Your task to perform on an android device: open app "Booking.com: Hotels and more" (install if not already installed) Image 0: 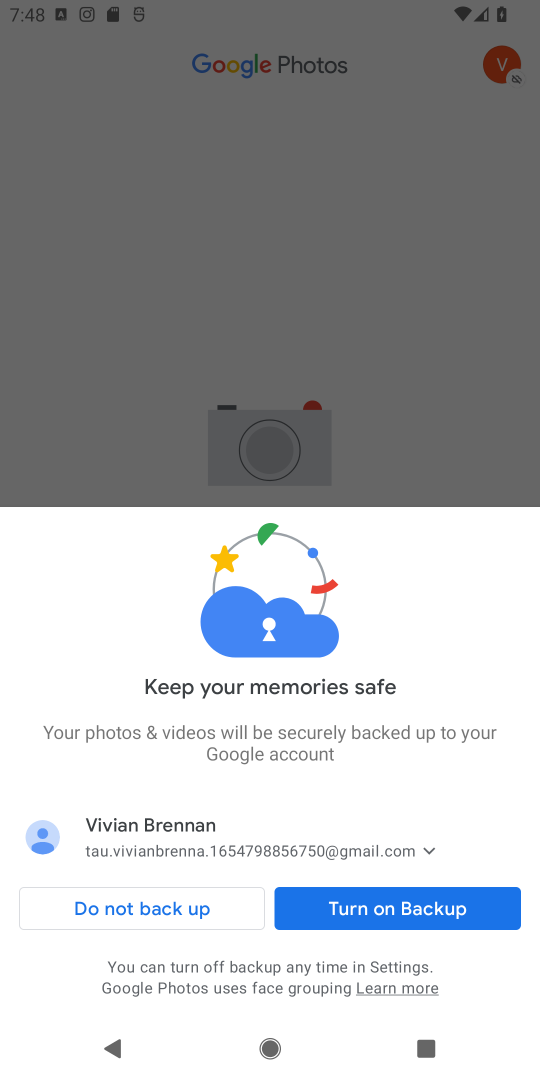
Step 0: press home button
Your task to perform on an android device: open app "Booking.com: Hotels and more" (install if not already installed) Image 1: 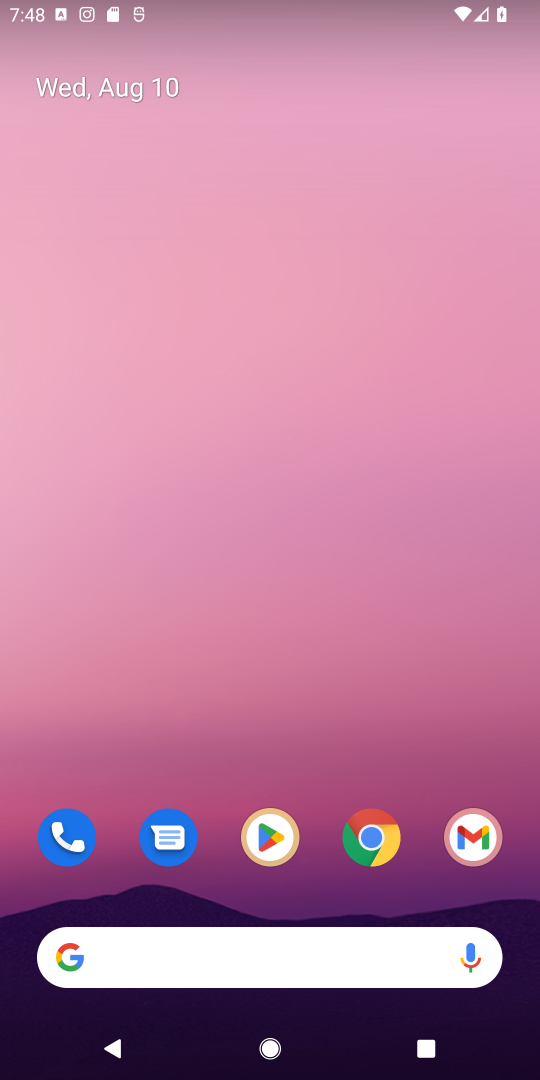
Step 1: click (268, 836)
Your task to perform on an android device: open app "Booking.com: Hotels and more" (install if not already installed) Image 2: 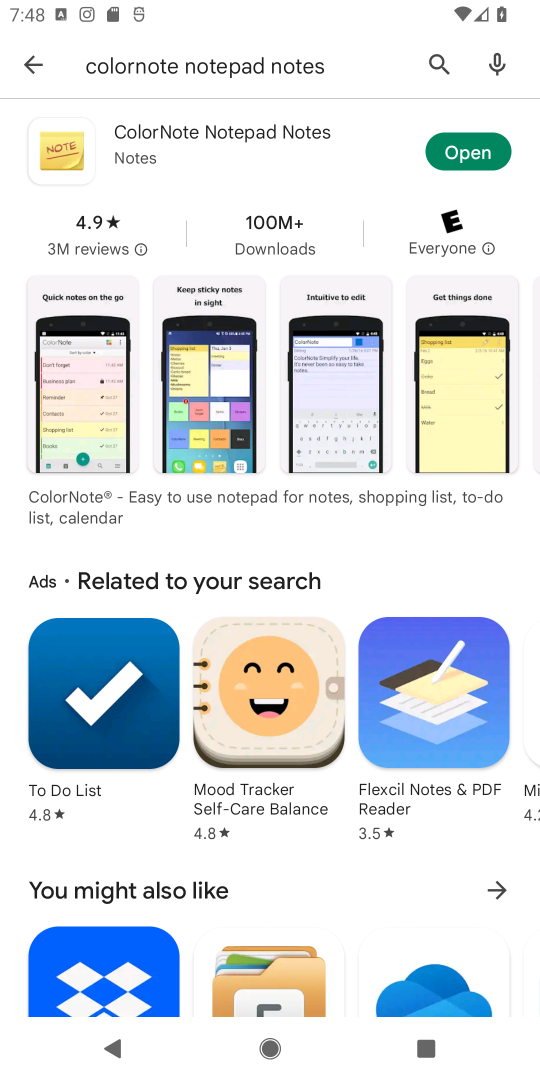
Step 2: click (425, 61)
Your task to perform on an android device: open app "Booking.com: Hotels and more" (install if not already installed) Image 3: 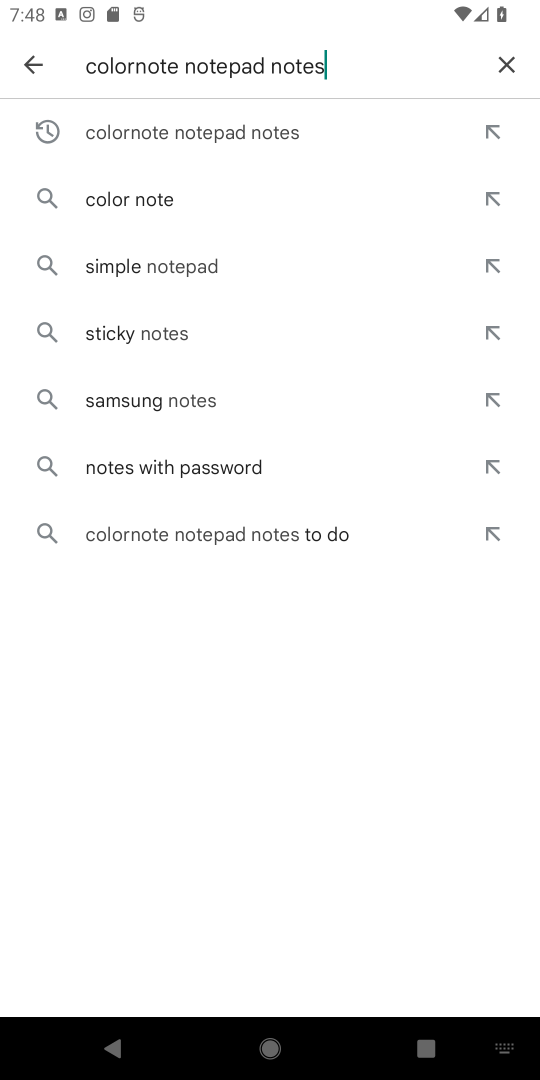
Step 3: click (502, 61)
Your task to perform on an android device: open app "Booking.com: Hotels and more" (install if not already installed) Image 4: 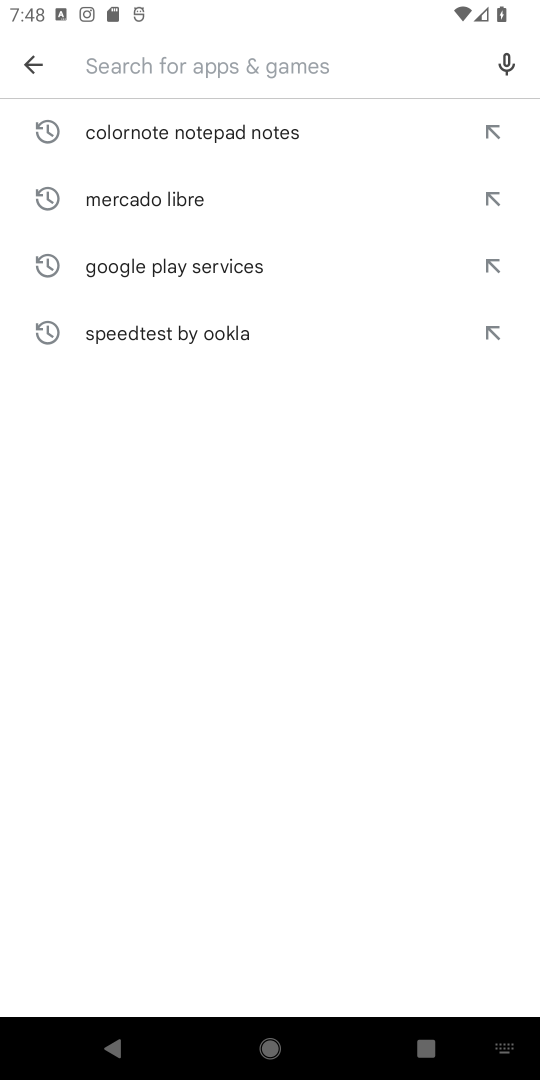
Step 4: type "Booking.com: Hotels and more"
Your task to perform on an android device: open app "Booking.com: Hotels and more" (install if not already installed) Image 5: 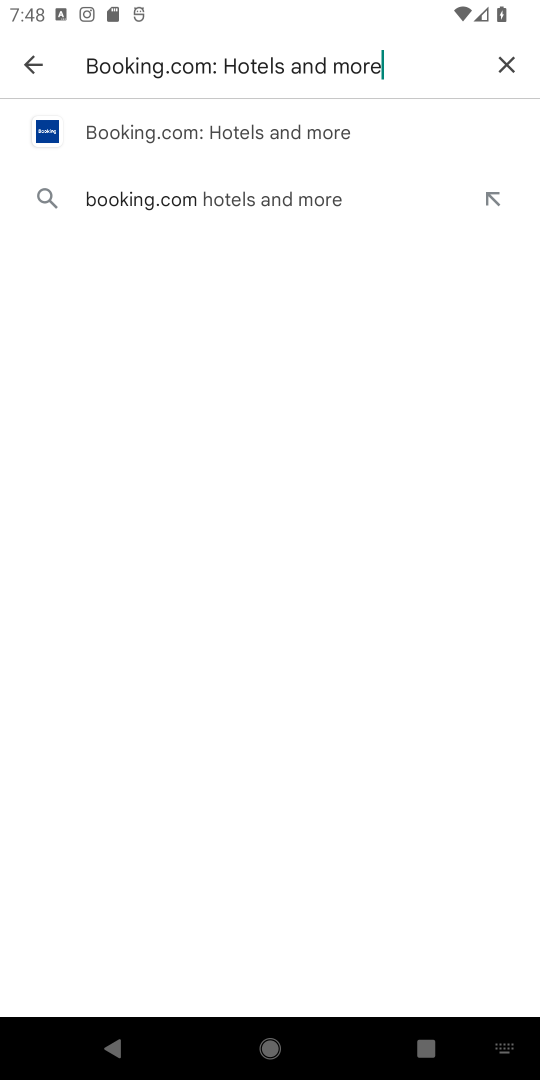
Step 5: click (215, 117)
Your task to perform on an android device: open app "Booking.com: Hotels and more" (install if not already installed) Image 6: 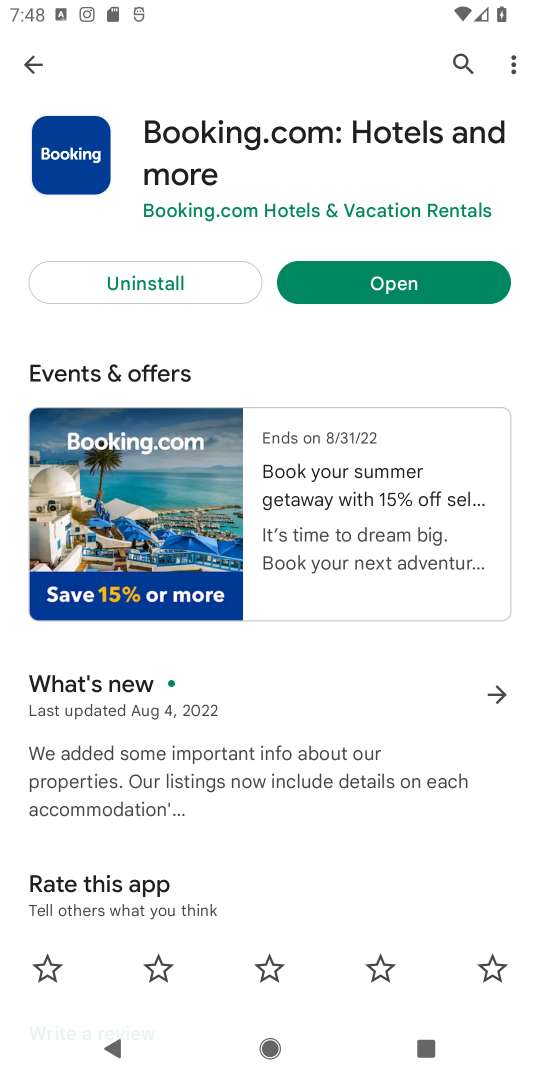
Step 6: click (375, 276)
Your task to perform on an android device: open app "Booking.com: Hotels and more" (install if not already installed) Image 7: 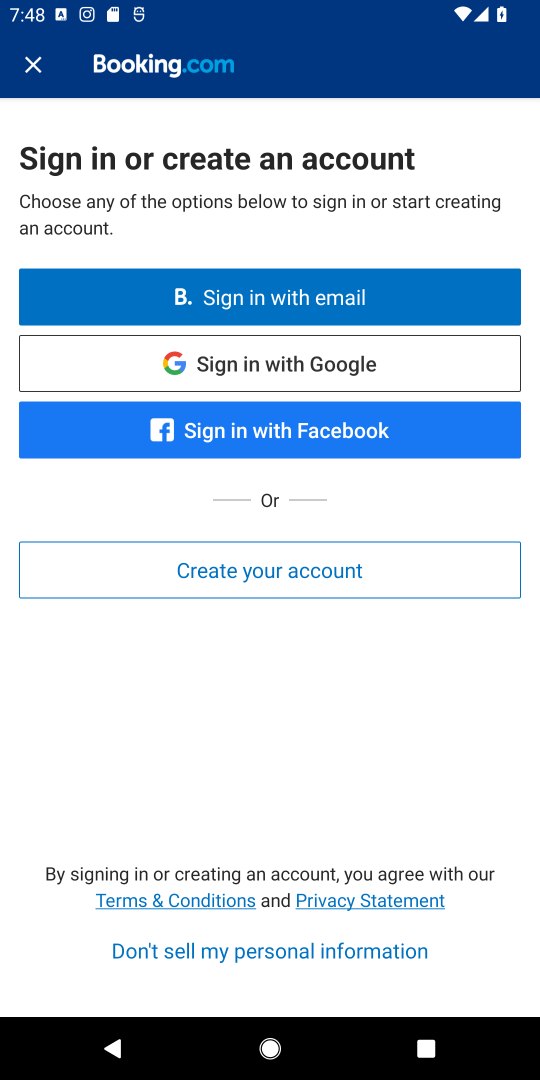
Step 7: task complete